Your task to perform on an android device: Search for Italian restaurants on Maps Image 0: 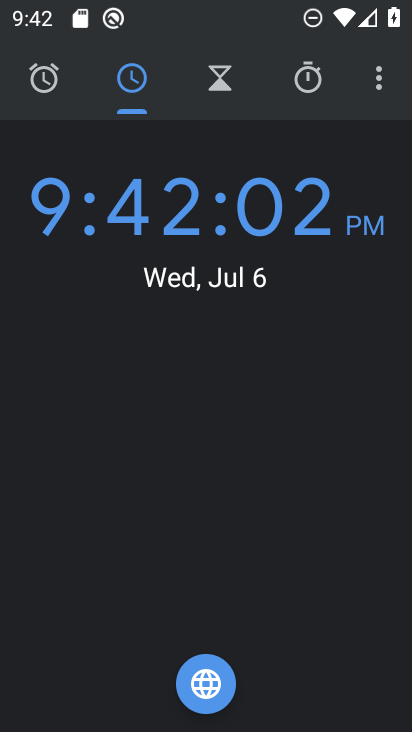
Step 0: press home button
Your task to perform on an android device: Search for Italian restaurants on Maps Image 1: 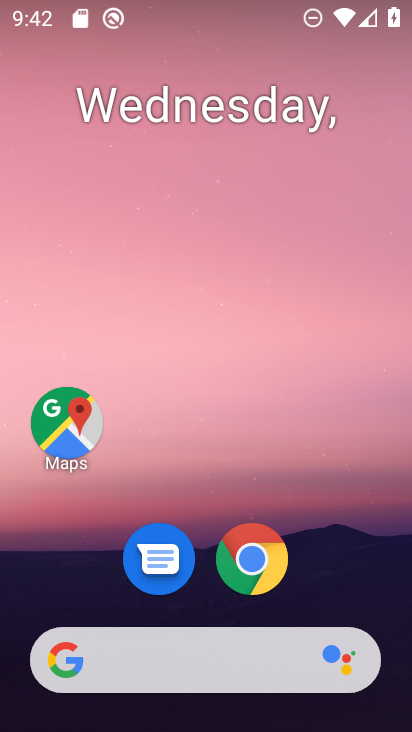
Step 1: drag from (373, 579) to (366, 189)
Your task to perform on an android device: Search for Italian restaurants on Maps Image 2: 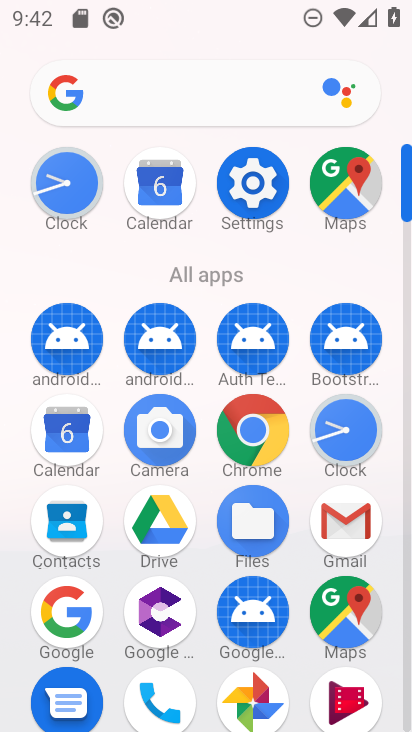
Step 2: click (362, 604)
Your task to perform on an android device: Search for Italian restaurants on Maps Image 3: 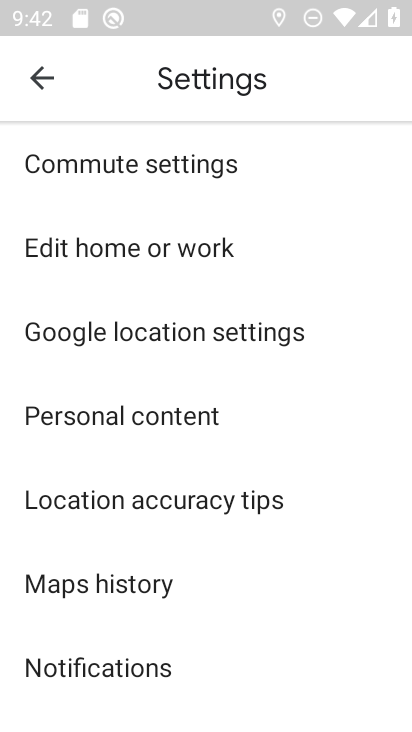
Step 3: press back button
Your task to perform on an android device: Search for Italian restaurants on Maps Image 4: 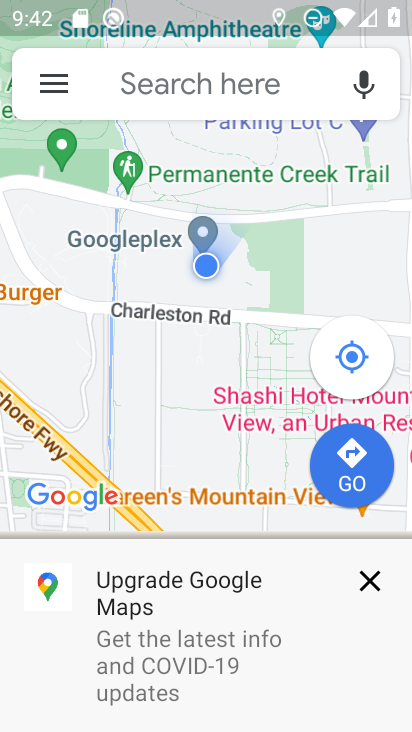
Step 4: click (211, 90)
Your task to perform on an android device: Search for Italian restaurants on Maps Image 5: 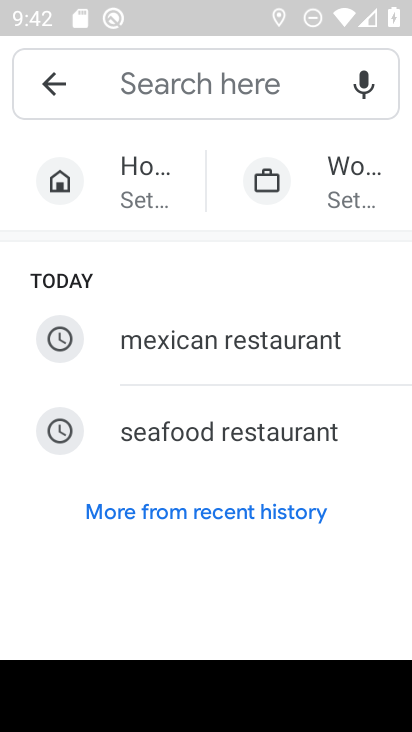
Step 5: type "italian restaurants"
Your task to perform on an android device: Search for Italian restaurants on Maps Image 6: 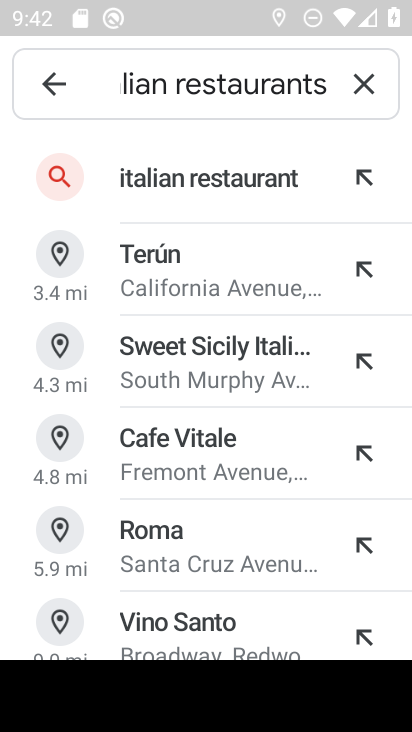
Step 6: click (283, 192)
Your task to perform on an android device: Search for Italian restaurants on Maps Image 7: 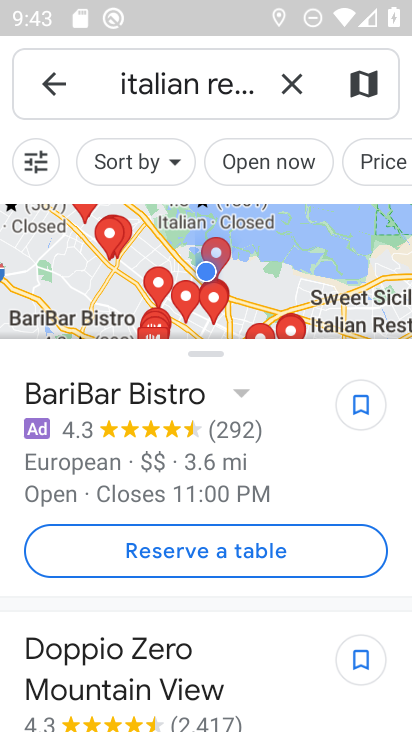
Step 7: task complete